Your task to perform on an android device: Go to settings Image 0: 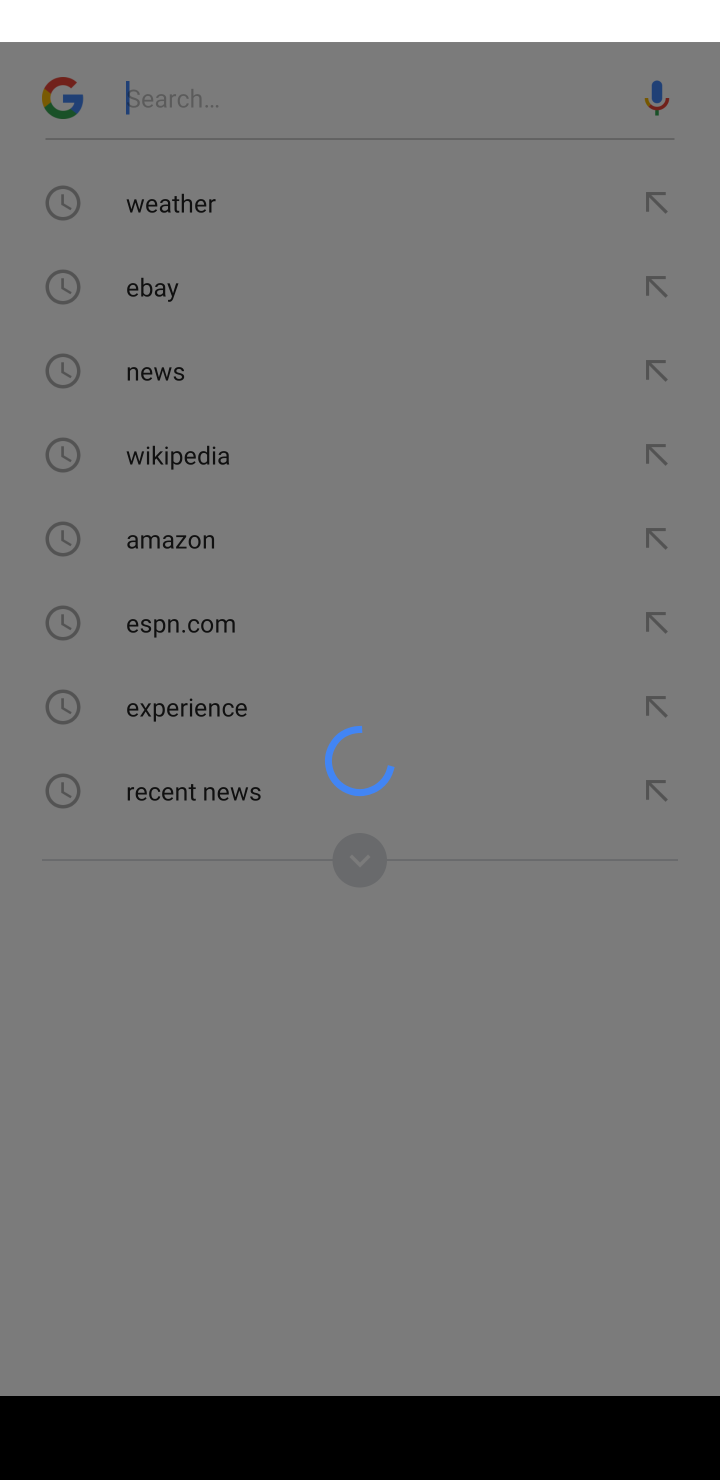
Step 0: press home button
Your task to perform on an android device: Go to settings Image 1: 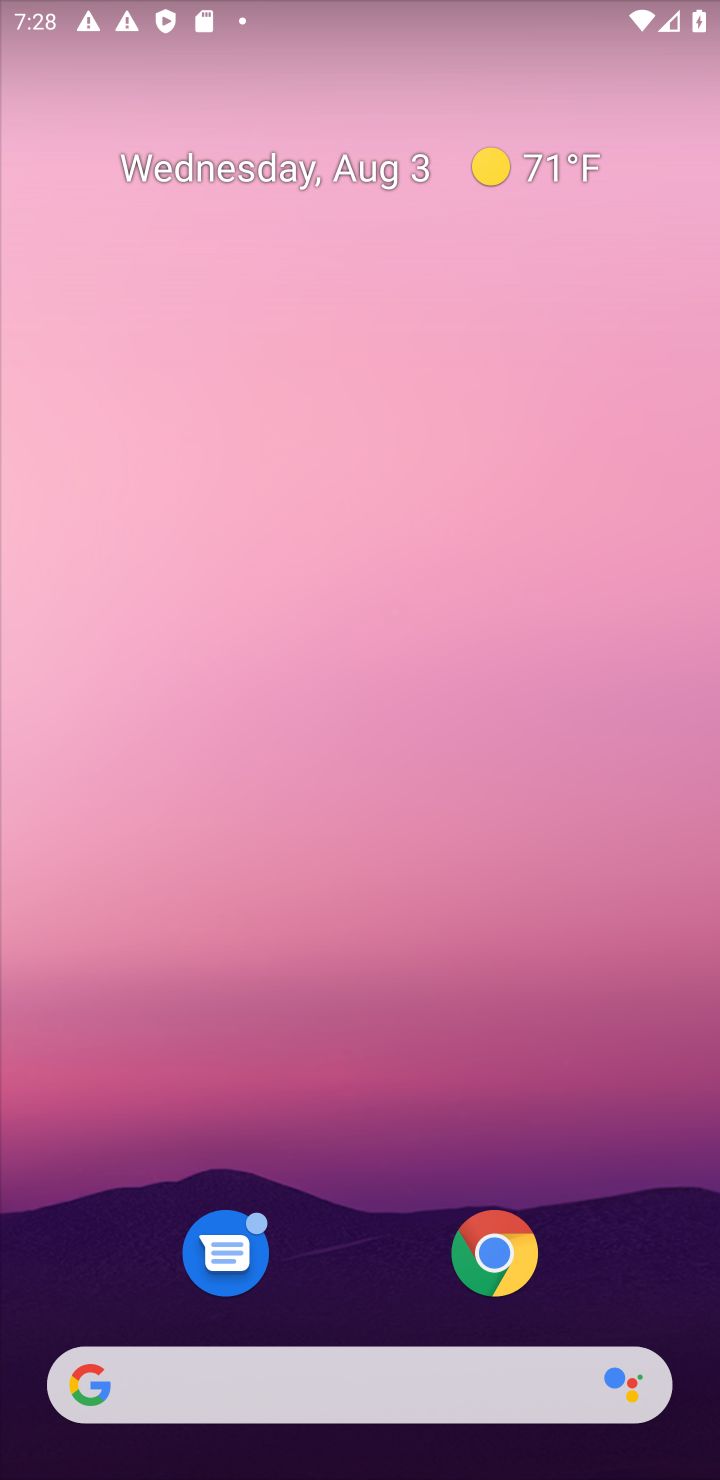
Step 1: drag from (382, 1045) to (457, 159)
Your task to perform on an android device: Go to settings Image 2: 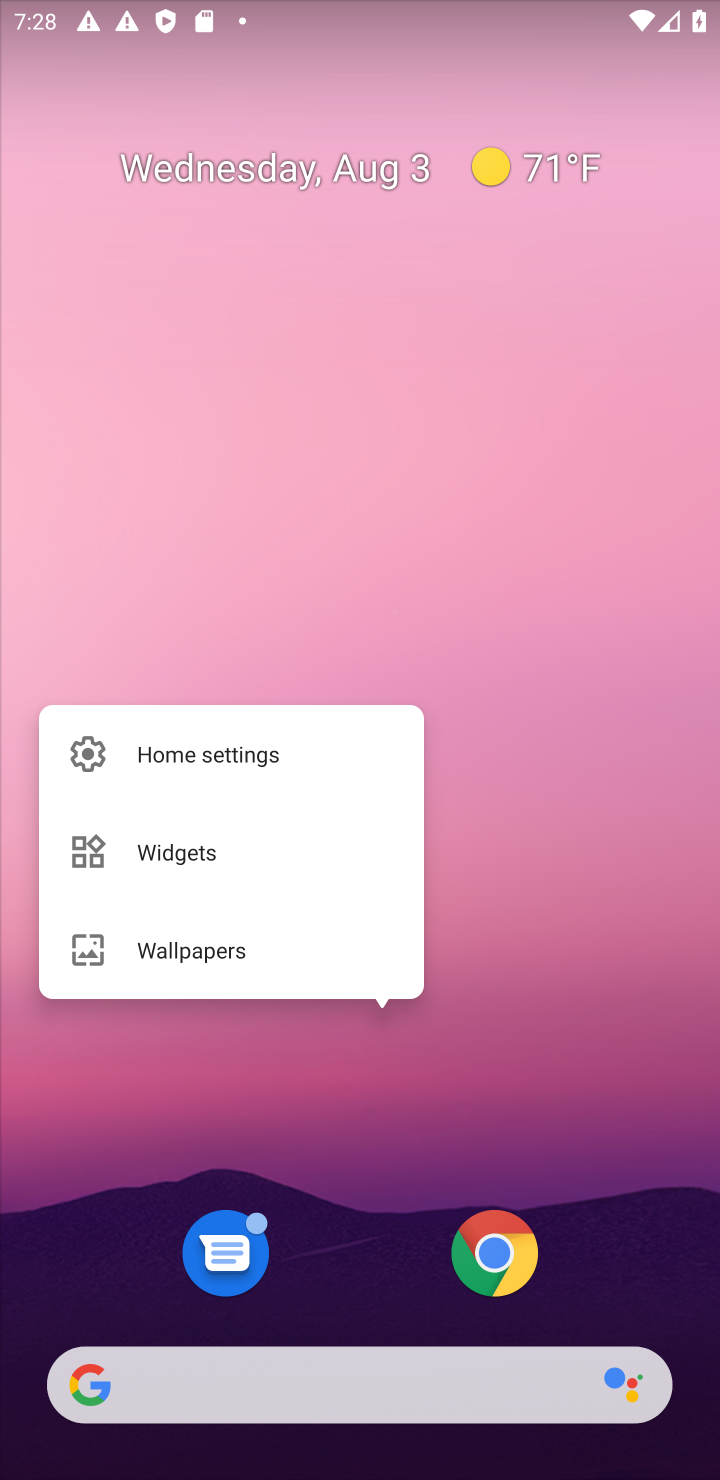
Step 2: drag from (401, 1254) to (472, 367)
Your task to perform on an android device: Go to settings Image 3: 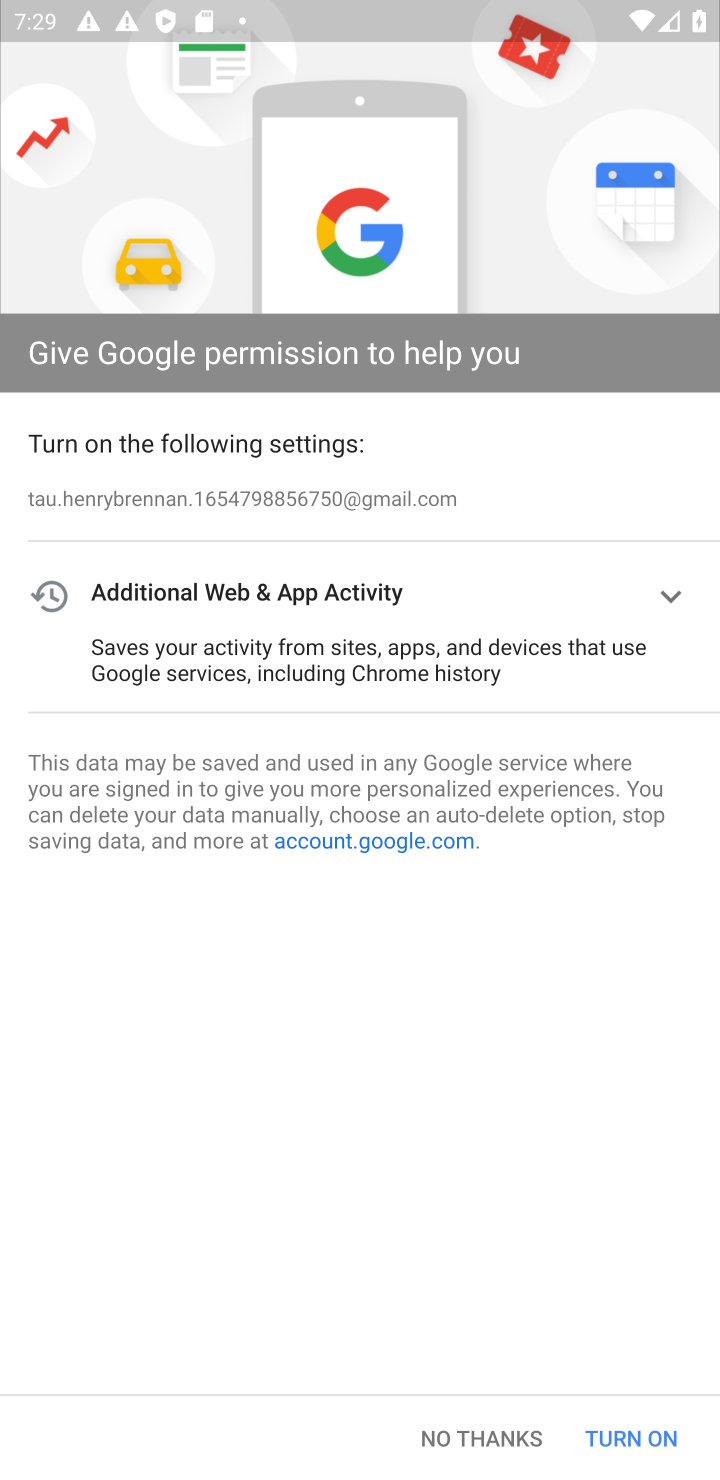
Step 3: press home button
Your task to perform on an android device: Go to settings Image 4: 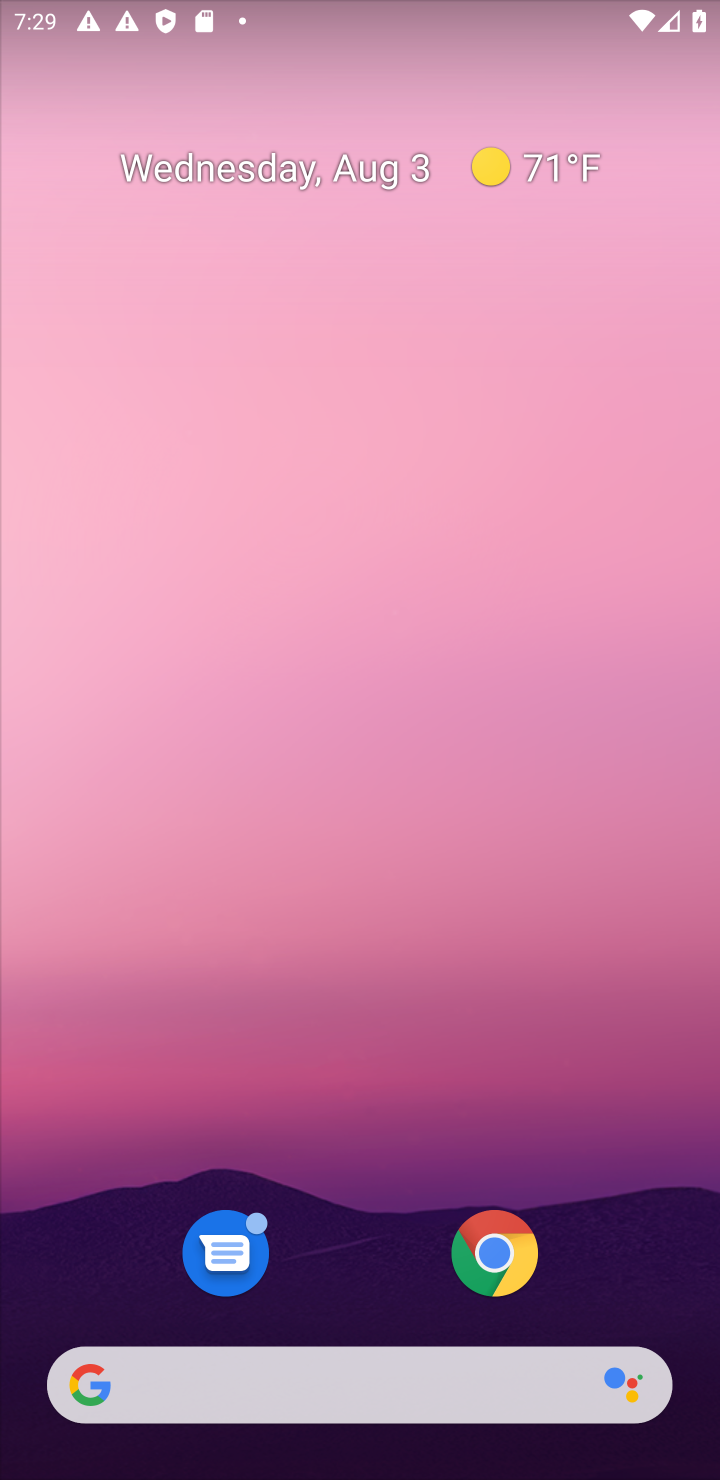
Step 4: drag from (357, 1221) to (389, 103)
Your task to perform on an android device: Go to settings Image 5: 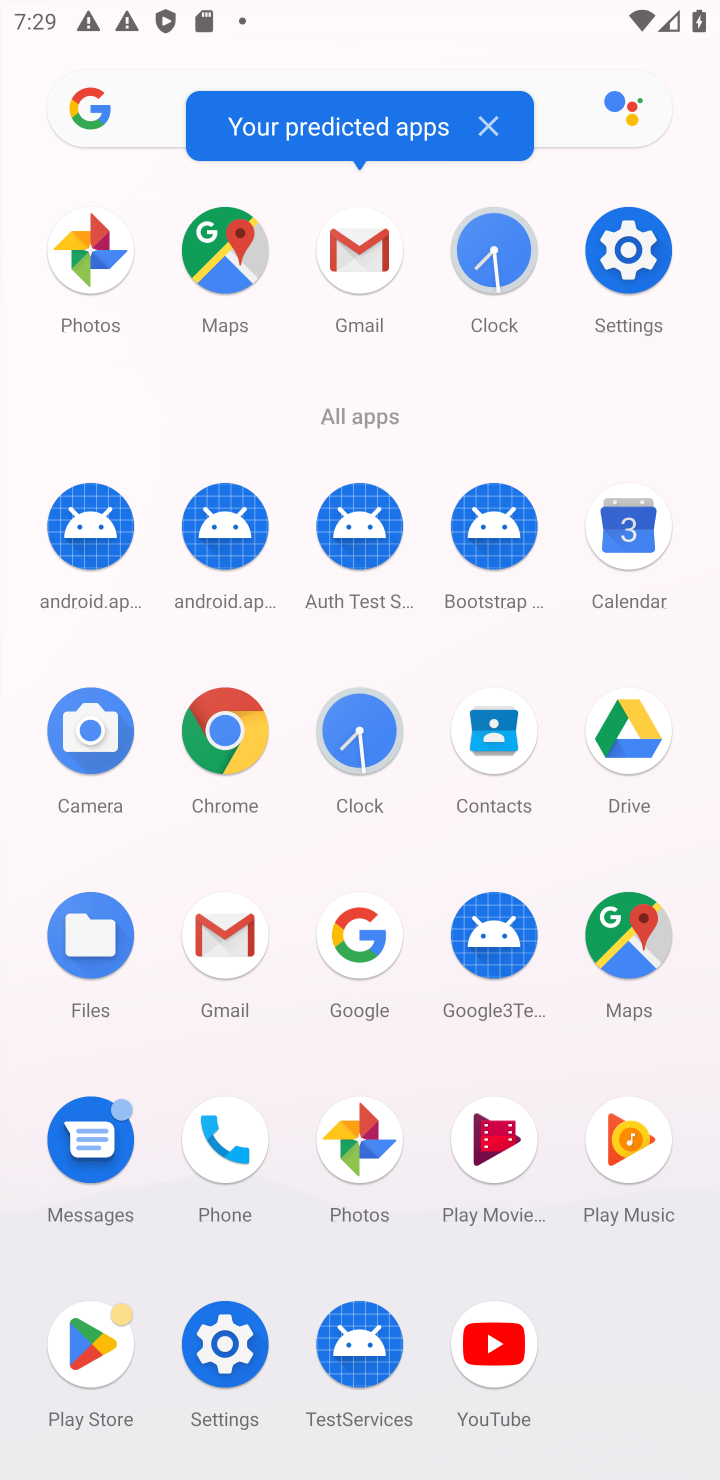
Step 5: click (635, 247)
Your task to perform on an android device: Go to settings Image 6: 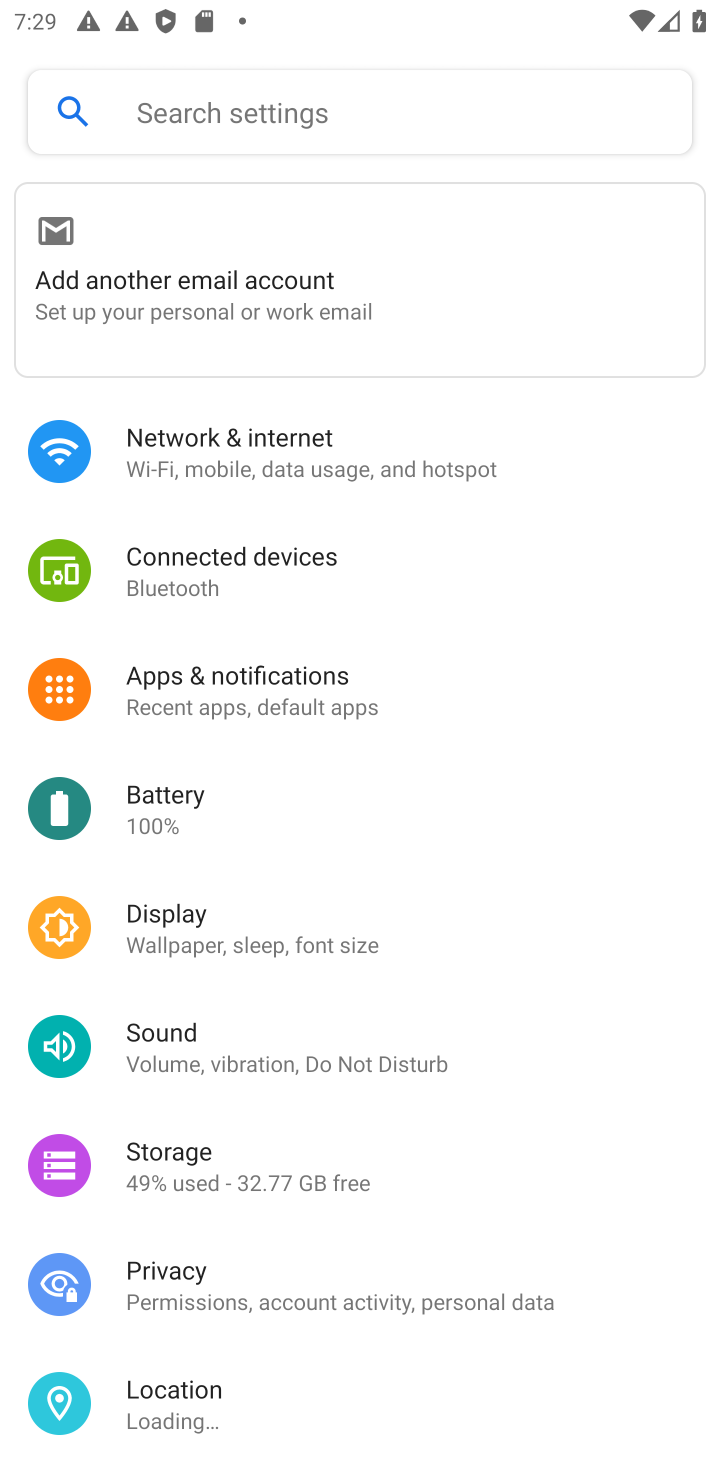
Step 6: task complete